Your task to perform on an android device: Toggle the flashlight Image 0: 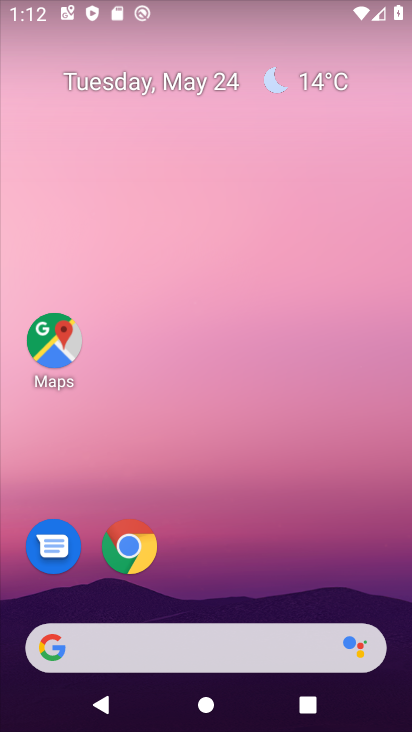
Step 0: drag from (231, 565) to (216, 71)
Your task to perform on an android device: Toggle the flashlight Image 1: 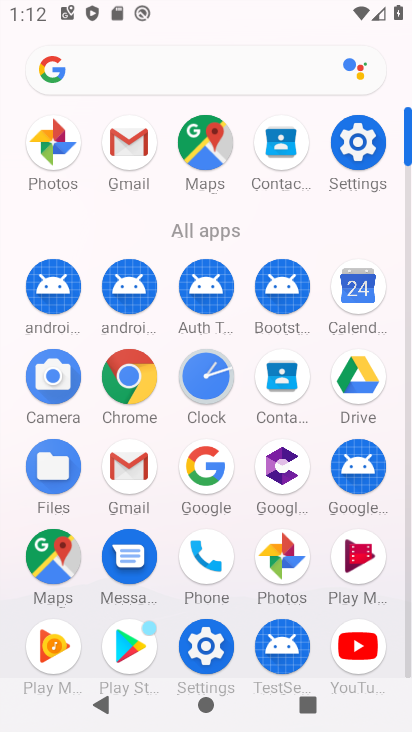
Step 1: click (203, 655)
Your task to perform on an android device: Toggle the flashlight Image 2: 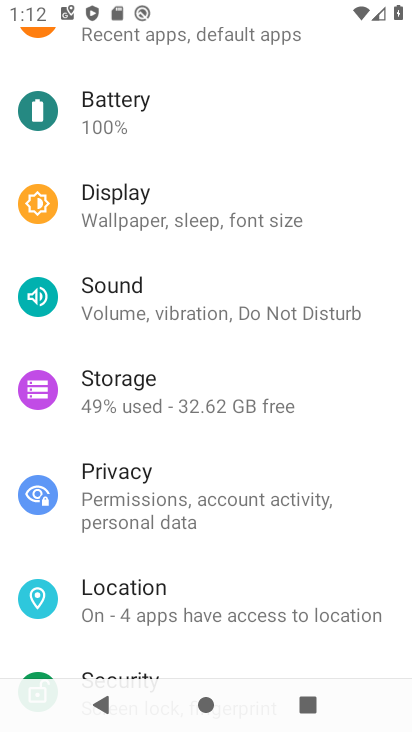
Step 2: drag from (192, 99) to (256, 576)
Your task to perform on an android device: Toggle the flashlight Image 3: 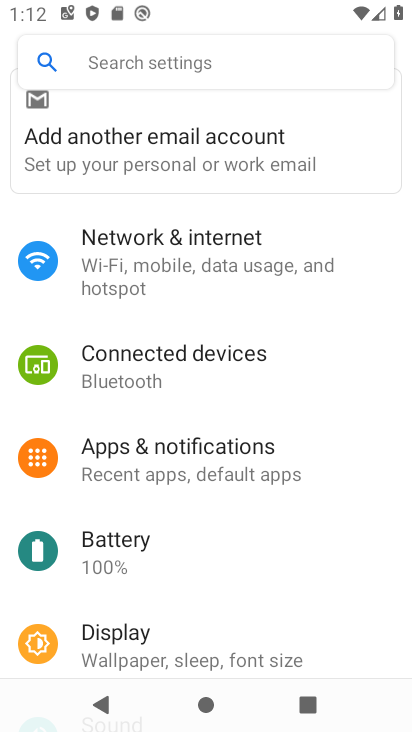
Step 3: click (196, 67)
Your task to perform on an android device: Toggle the flashlight Image 4: 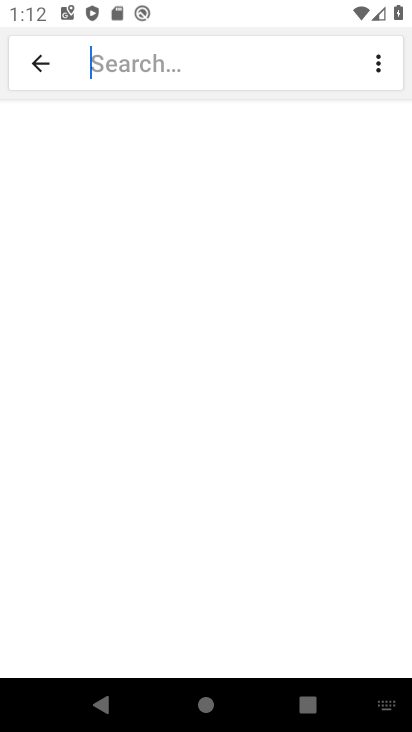
Step 4: type "flash"
Your task to perform on an android device: Toggle the flashlight Image 5: 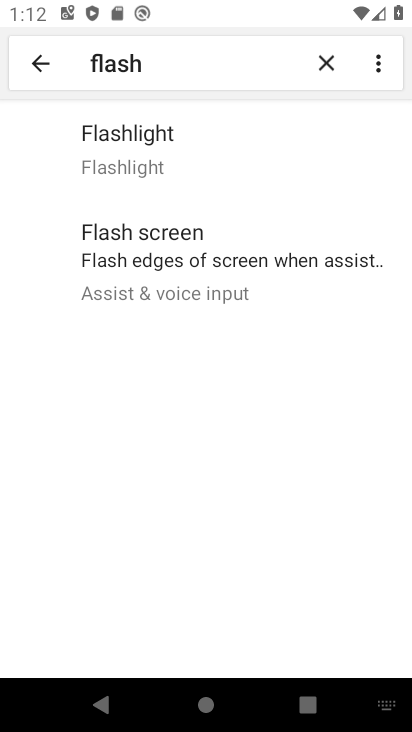
Step 5: task complete